Your task to perform on an android device: Go to Yahoo.com Image 0: 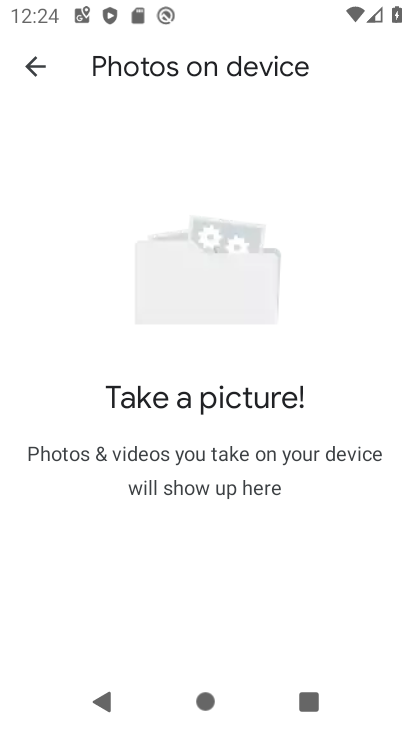
Step 0: press home button
Your task to perform on an android device: Go to Yahoo.com Image 1: 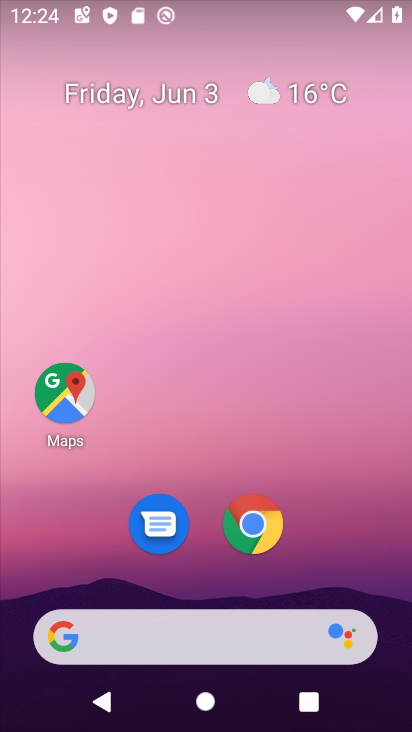
Step 1: click (244, 653)
Your task to perform on an android device: Go to Yahoo.com Image 2: 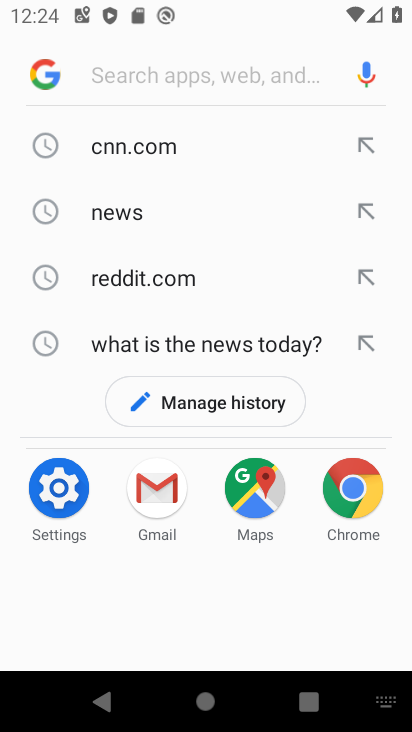
Step 2: type "yahoo.com"
Your task to perform on an android device: Go to Yahoo.com Image 3: 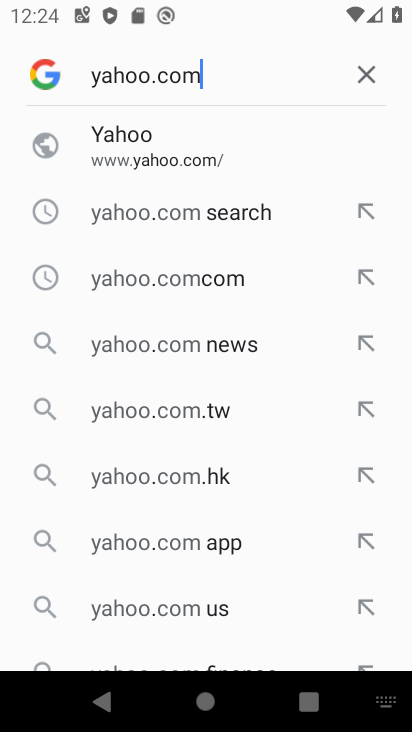
Step 3: click (140, 138)
Your task to perform on an android device: Go to Yahoo.com Image 4: 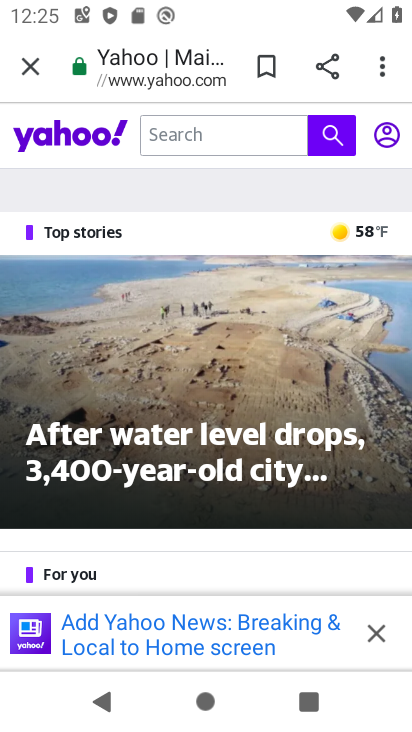
Step 4: task complete